Your task to perform on an android device: change the clock display to digital Image 0: 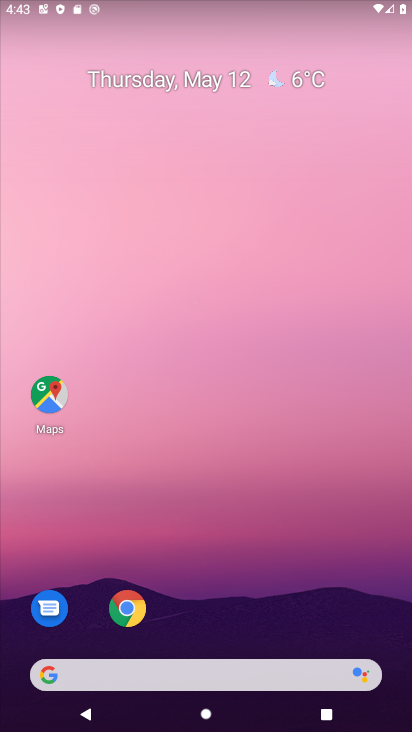
Step 0: drag from (237, 597) to (290, 105)
Your task to perform on an android device: change the clock display to digital Image 1: 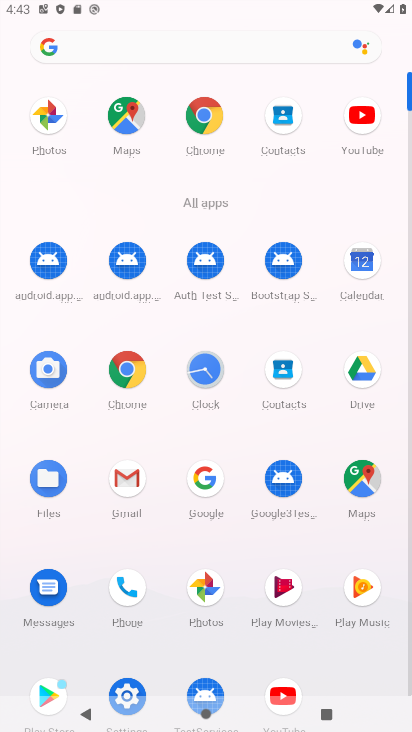
Step 1: click (198, 367)
Your task to perform on an android device: change the clock display to digital Image 2: 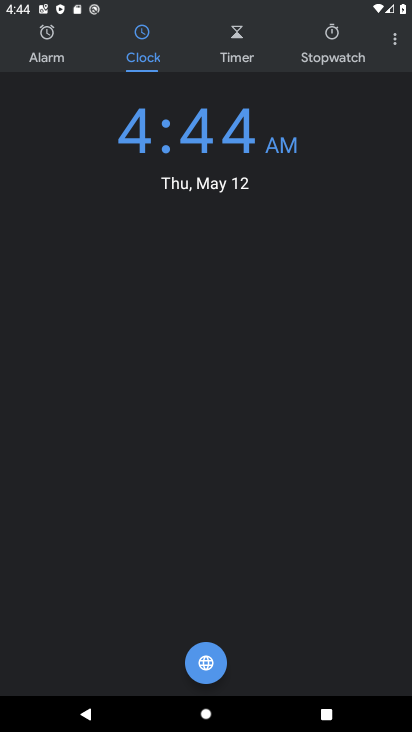
Step 2: click (395, 36)
Your task to perform on an android device: change the clock display to digital Image 3: 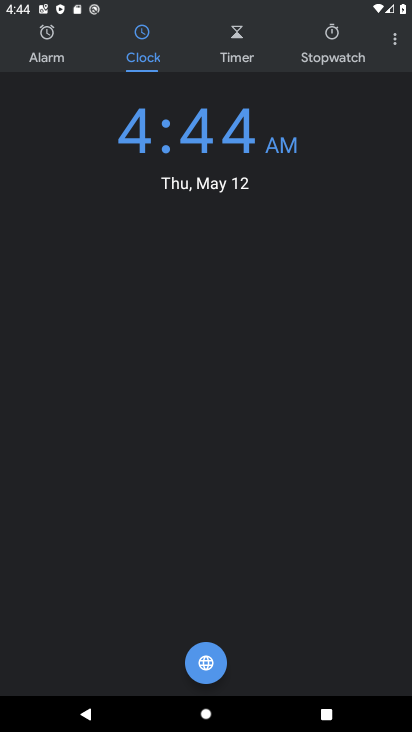
Step 3: click (396, 46)
Your task to perform on an android device: change the clock display to digital Image 4: 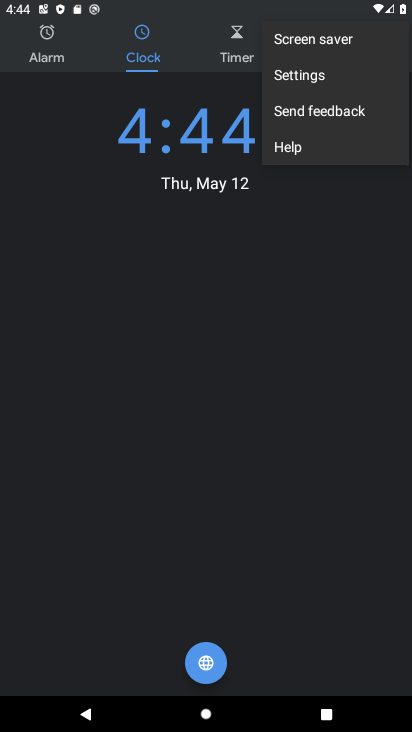
Step 4: click (298, 72)
Your task to perform on an android device: change the clock display to digital Image 5: 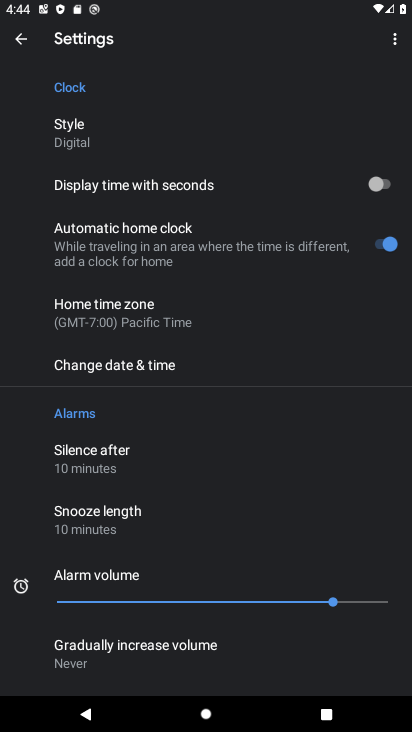
Step 5: task complete